Your task to perform on an android device: all mails in gmail Image 0: 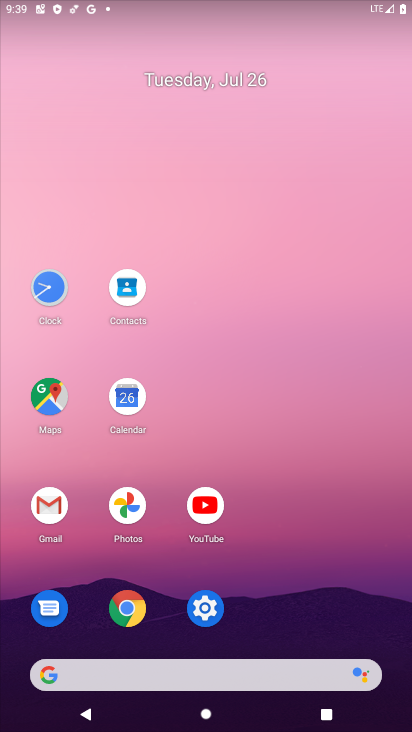
Step 0: click (48, 507)
Your task to perform on an android device: all mails in gmail Image 1: 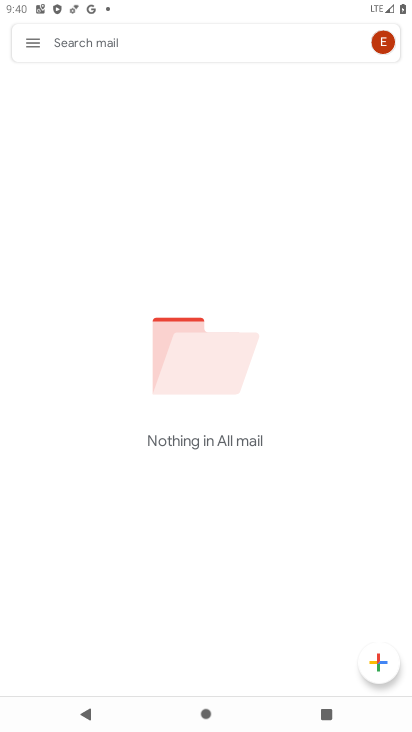
Step 1: task complete